Your task to perform on an android device: add a contact in the contacts app Image 0: 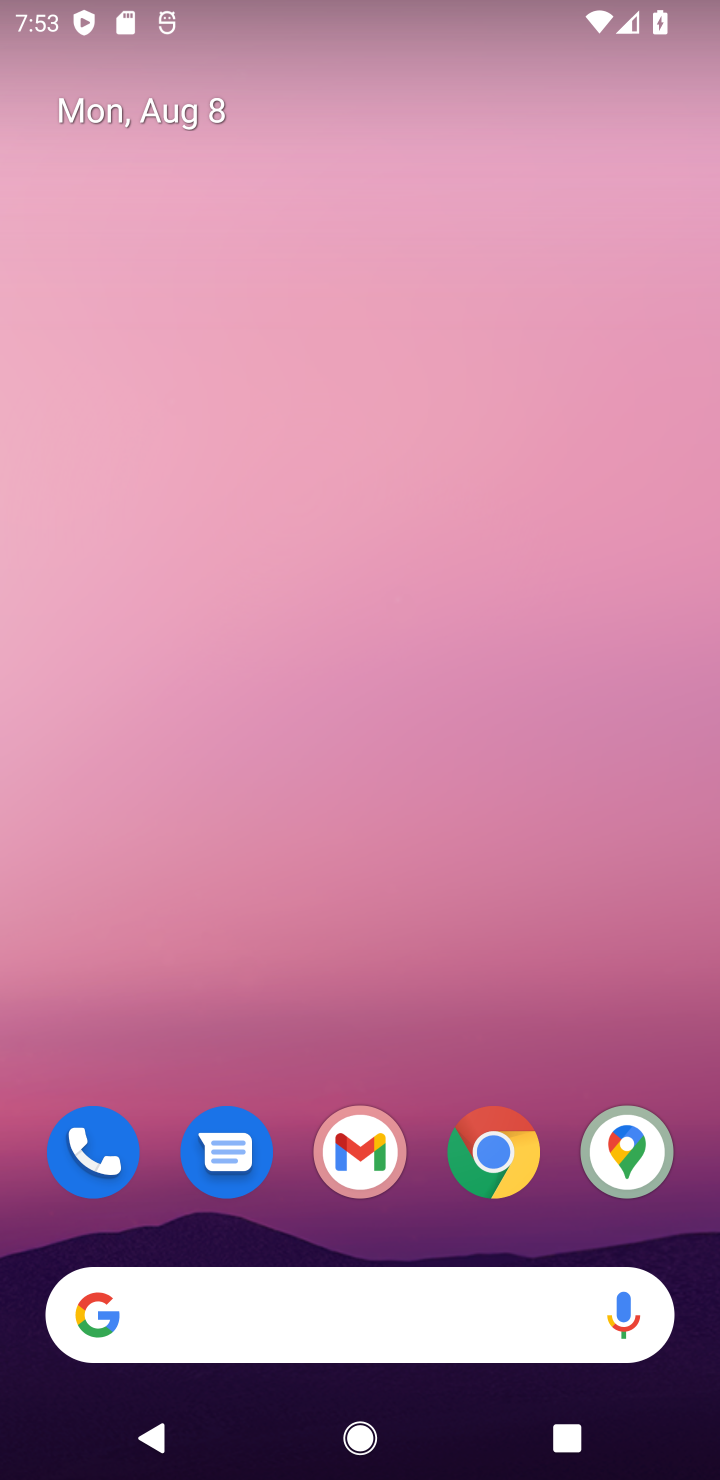
Step 0: drag from (354, 1029) to (642, 542)
Your task to perform on an android device: add a contact in the contacts app Image 1: 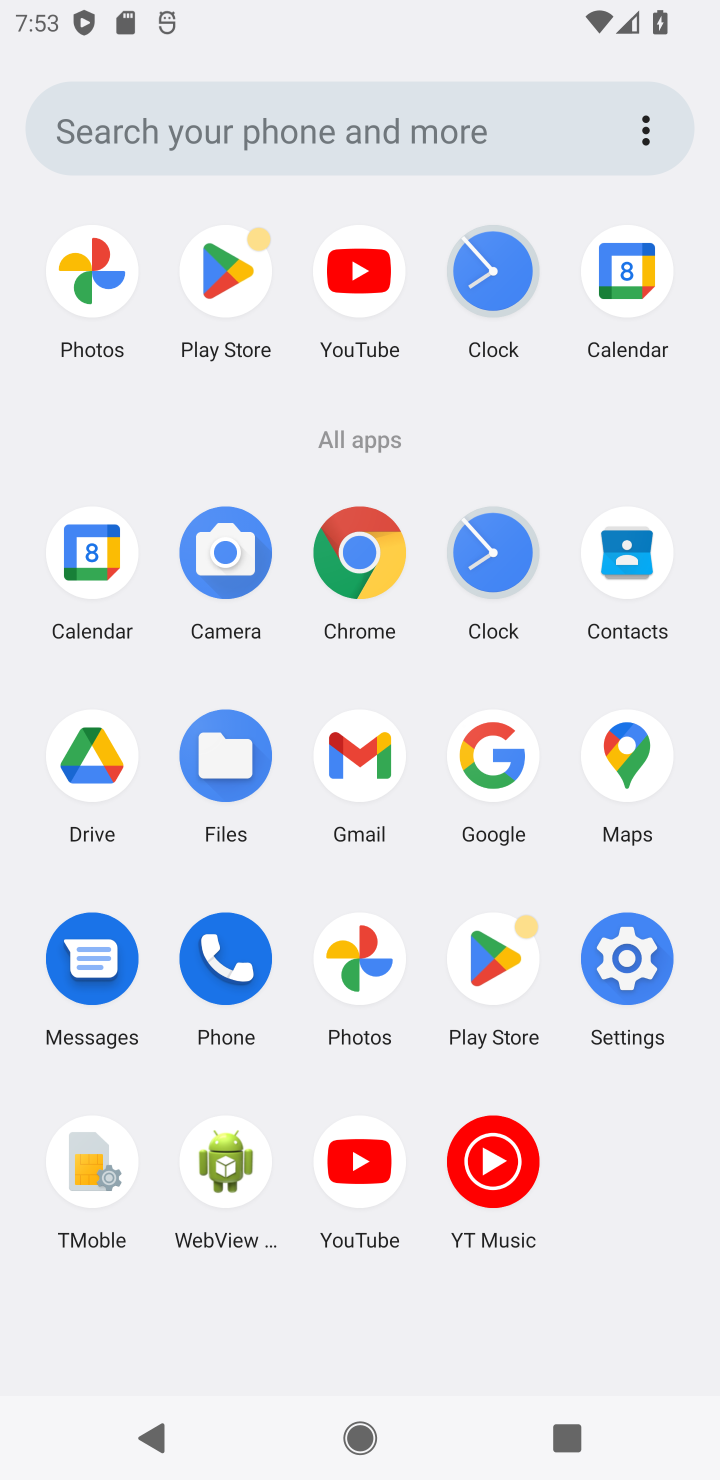
Step 1: click (613, 551)
Your task to perform on an android device: add a contact in the contacts app Image 2: 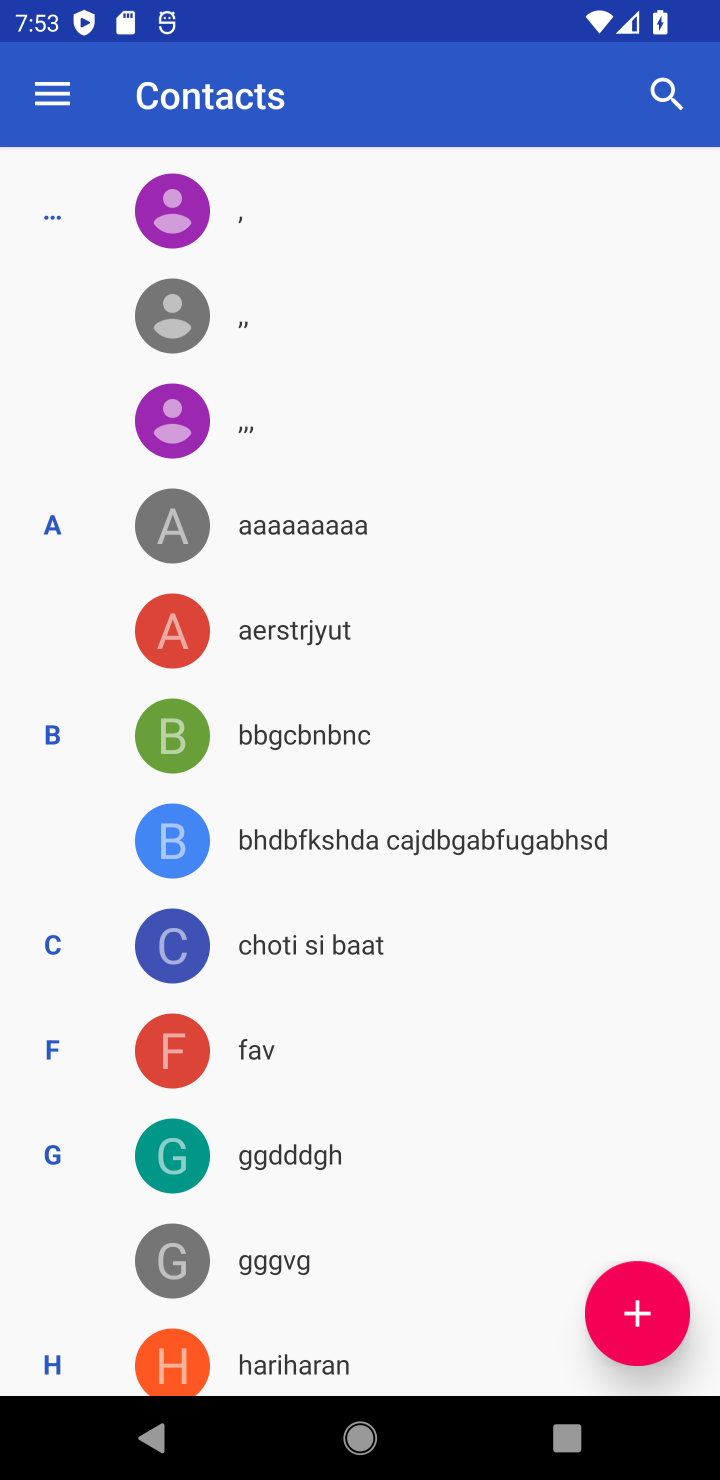
Step 2: click (638, 1321)
Your task to perform on an android device: add a contact in the contacts app Image 3: 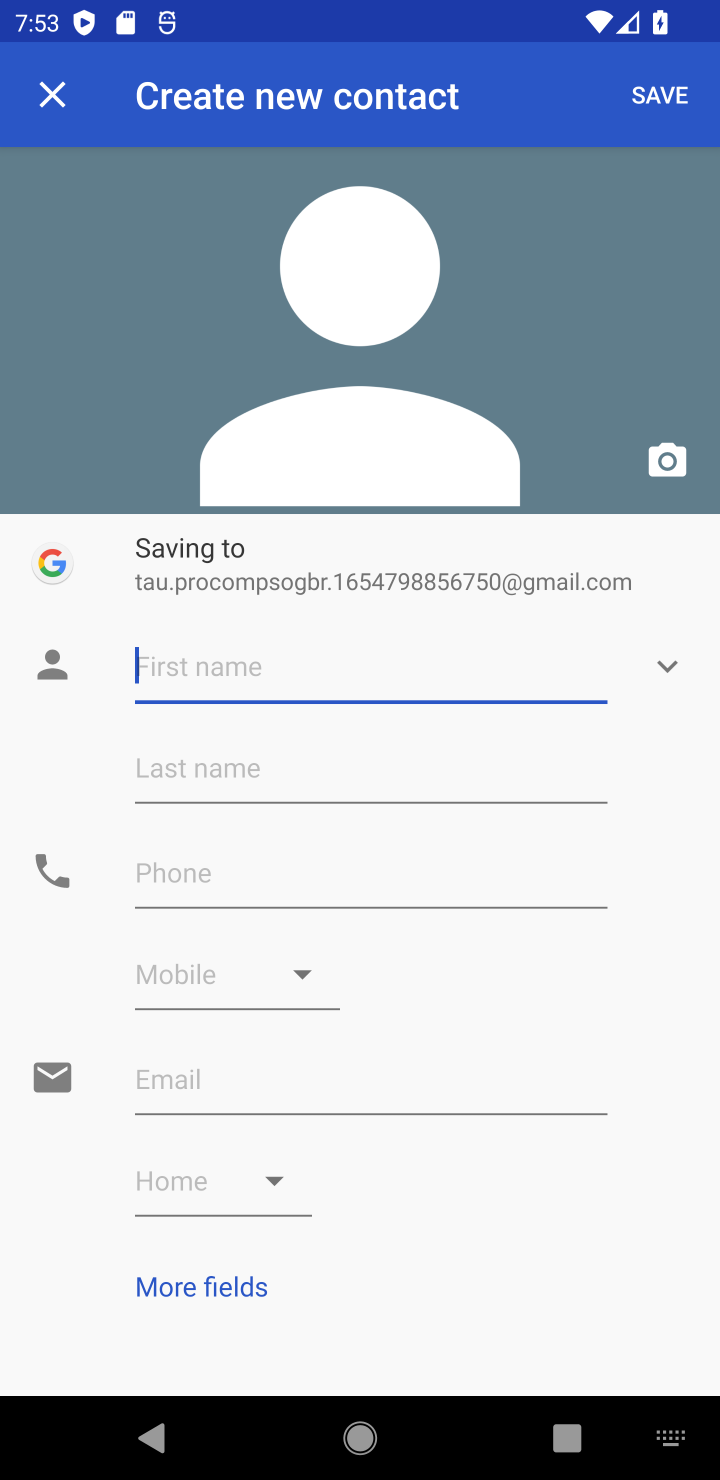
Step 3: type "sdfg"
Your task to perform on an android device: add a contact in the contacts app Image 4: 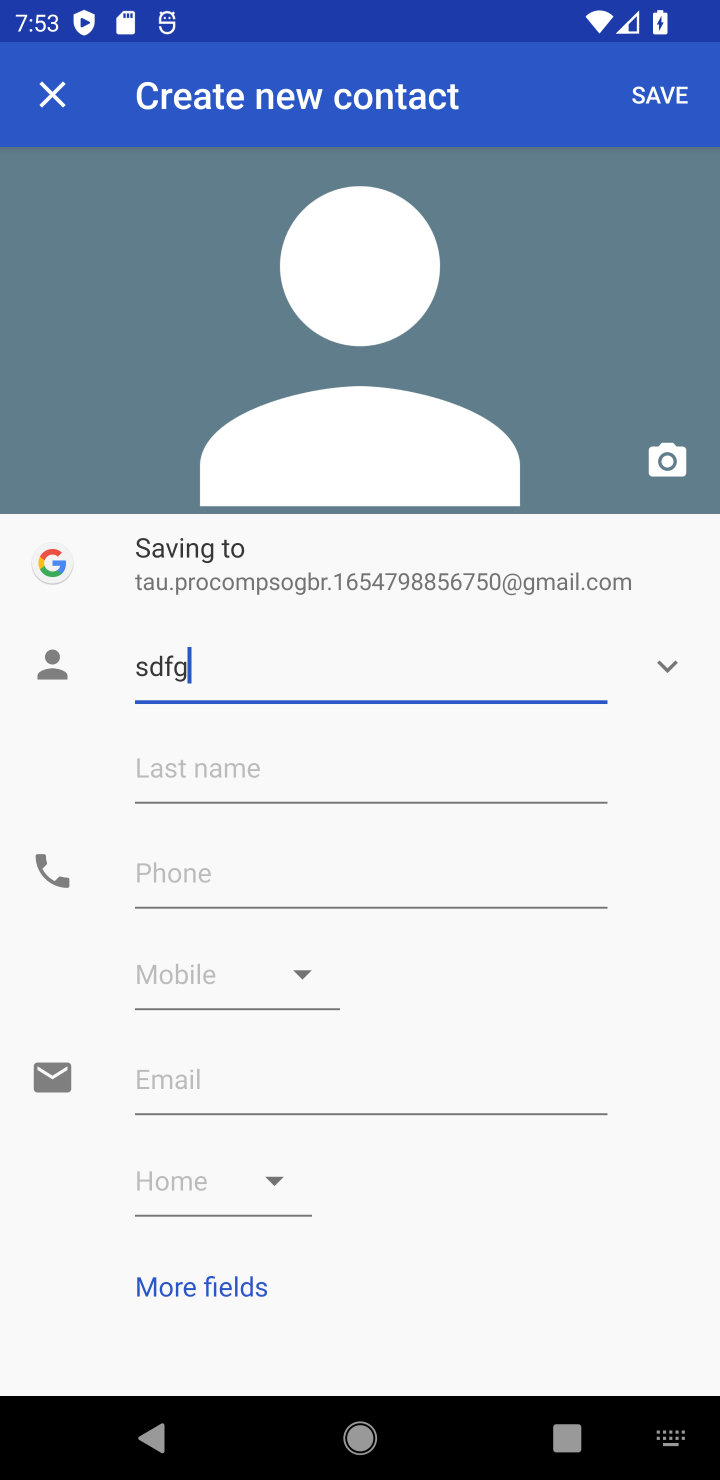
Step 4: click (218, 881)
Your task to perform on an android device: add a contact in the contacts app Image 5: 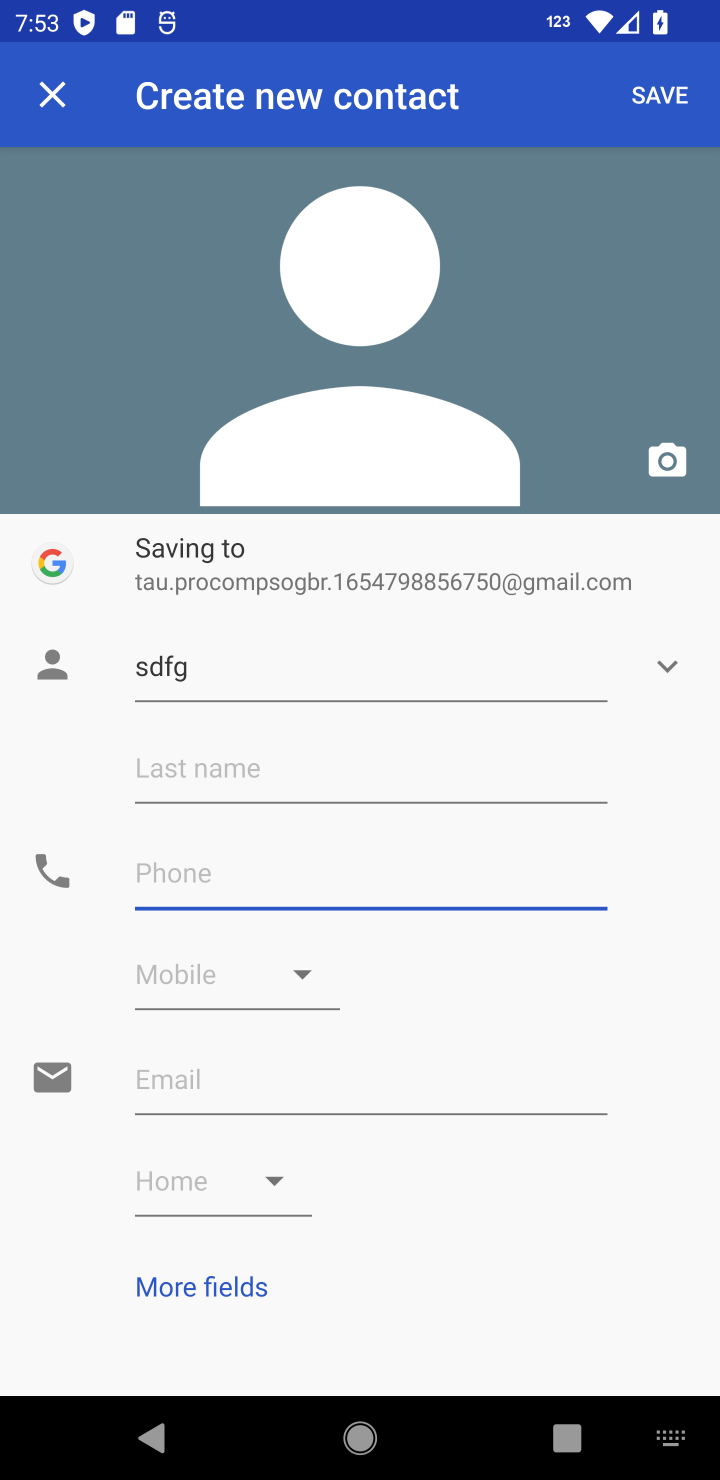
Step 5: type "9876545678"
Your task to perform on an android device: add a contact in the contacts app Image 6: 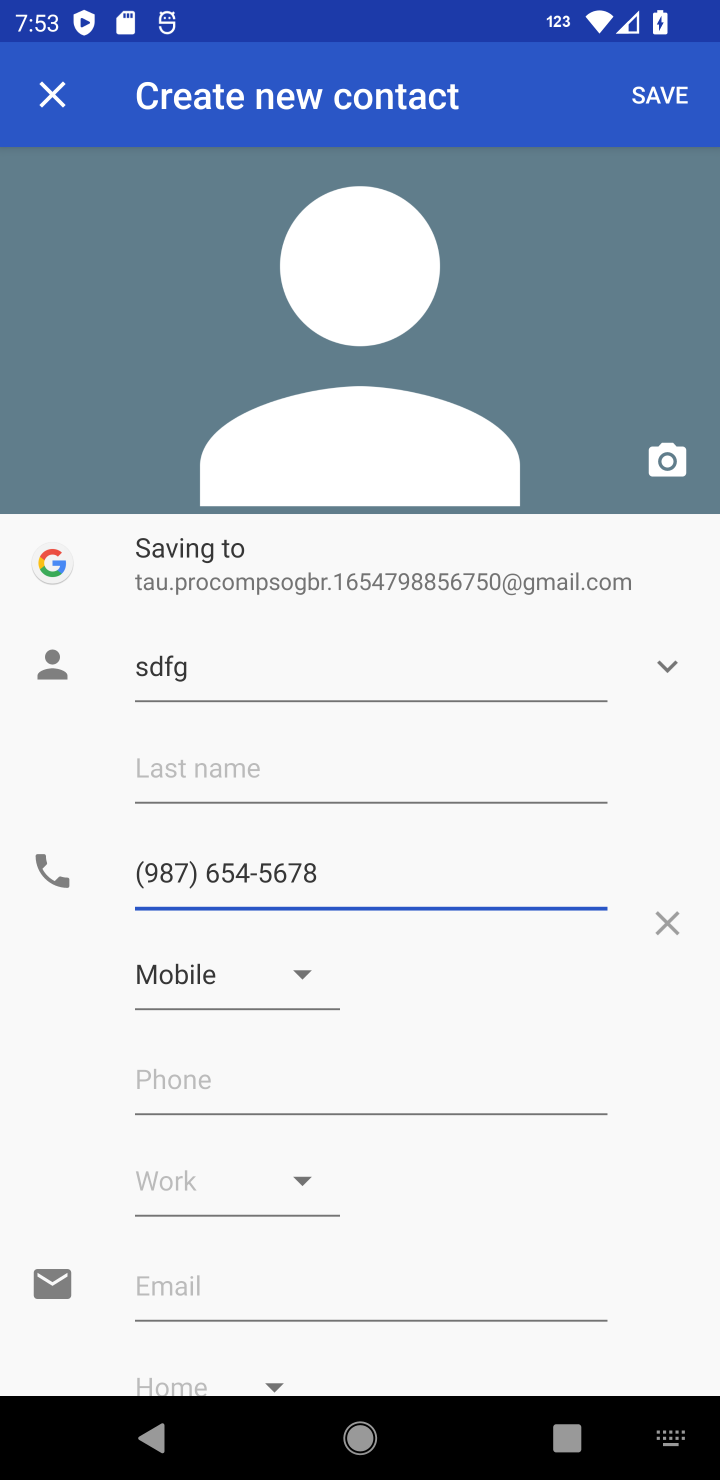
Step 6: click (654, 95)
Your task to perform on an android device: add a contact in the contacts app Image 7: 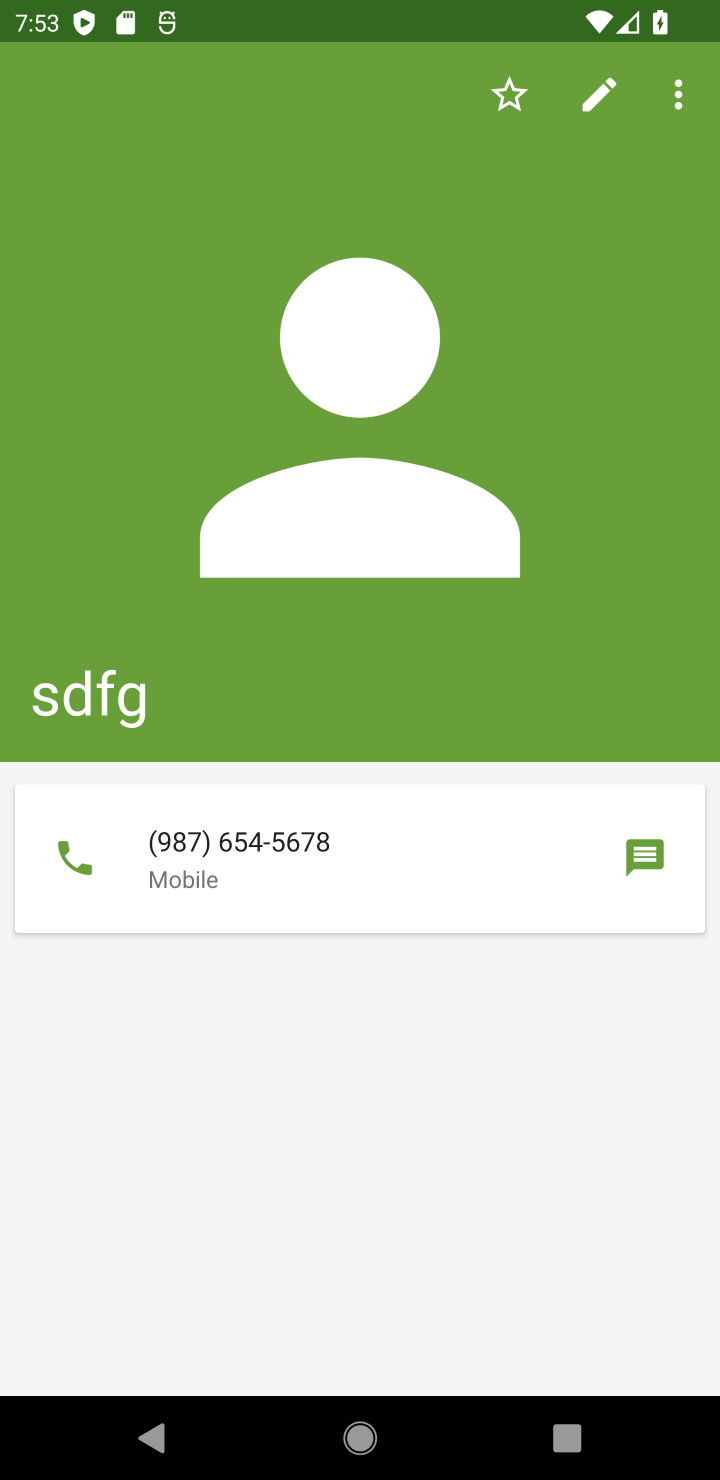
Step 7: task complete